Your task to perform on an android device: Go to privacy settings Image 0: 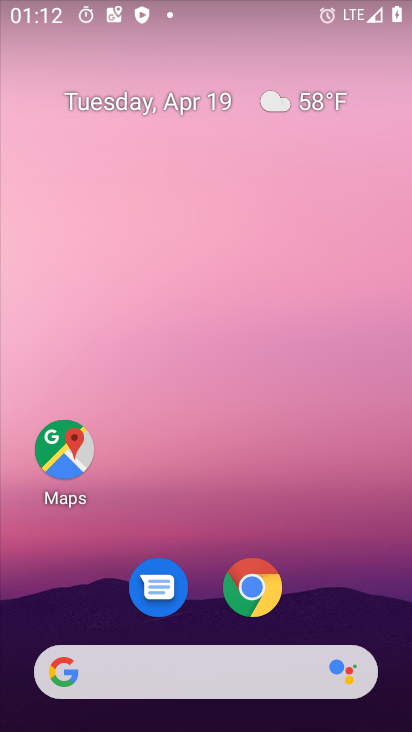
Step 0: drag from (378, 606) to (375, 45)
Your task to perform on an android device: Go to privacy settings Image 1: 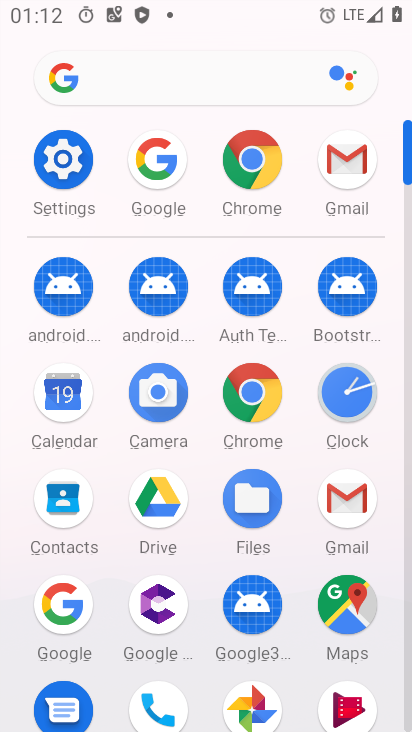
Step 1: click (62, 165)
Your task to perform on an android device: Go to privacy settings Image 2: 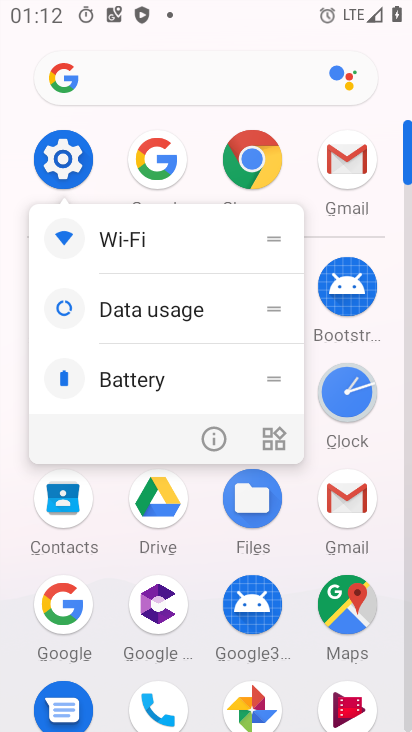
Step 2: click (63, 166)
Your task to perform on an android device: Go to privacy settings Image 3: 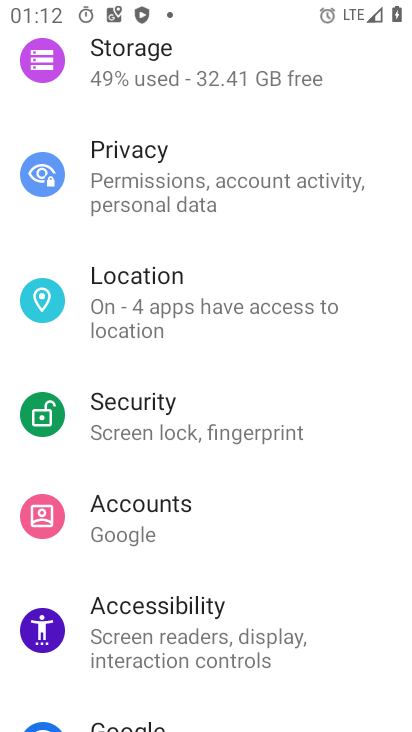
Step 3: drag from (313, 536) to (345, 199)
Your task to perform on an android device: Go to privacy settings Image 4: 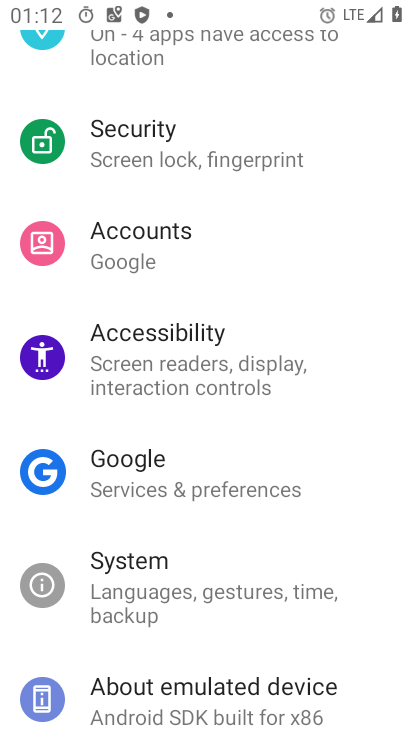
Step 4: drag from (347, 212) to (325, 555)
Your task to perform on an android device: Go to privacy settings Image 5: 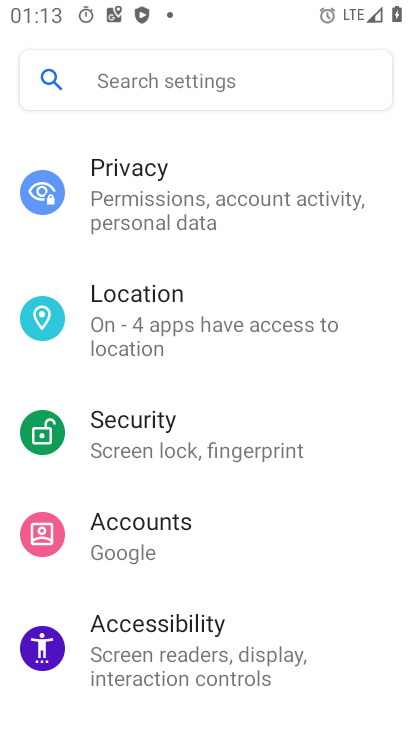
Step 5: click (152, 186)
Your task to perform on an android device: Go to privacy settings Image 6: 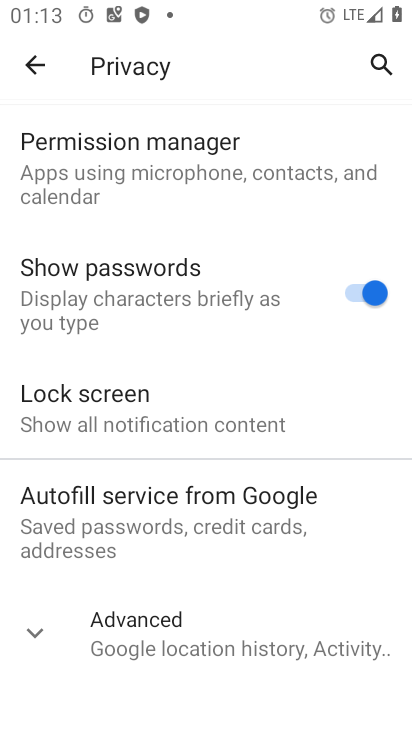
Step 6: task complete